Your task to perform on an android device: Open calendar and show me the second week of next month Image 0: 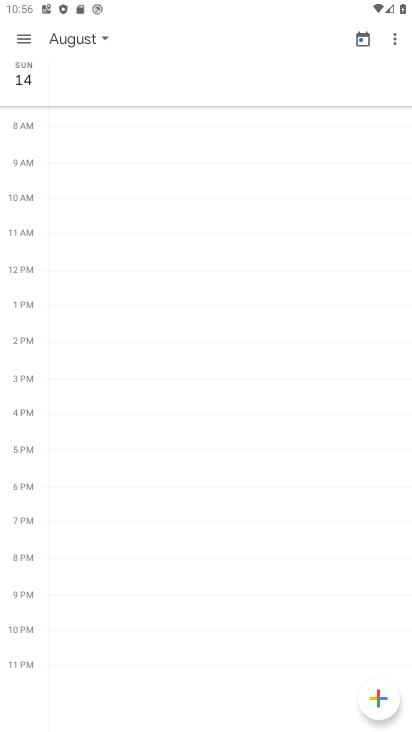
Step 0: click (99, 46)
Your task to perform on an android device: Open calendar and show me the second week of next month Image 1: 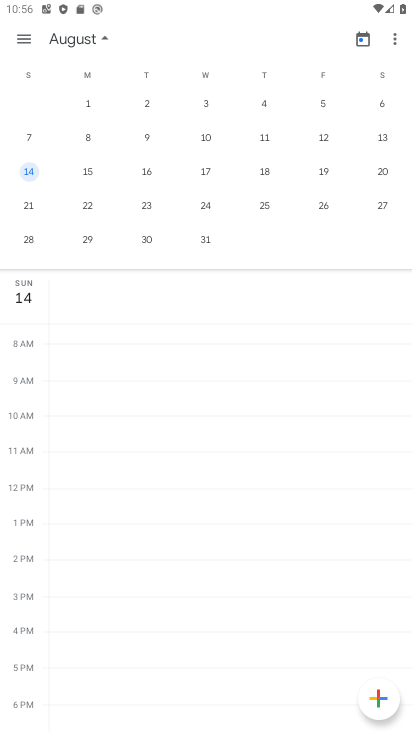
Step 1: click (32, 36)
Your task to perform on an android device: Open calendar and show me the second week of next month Image 2: 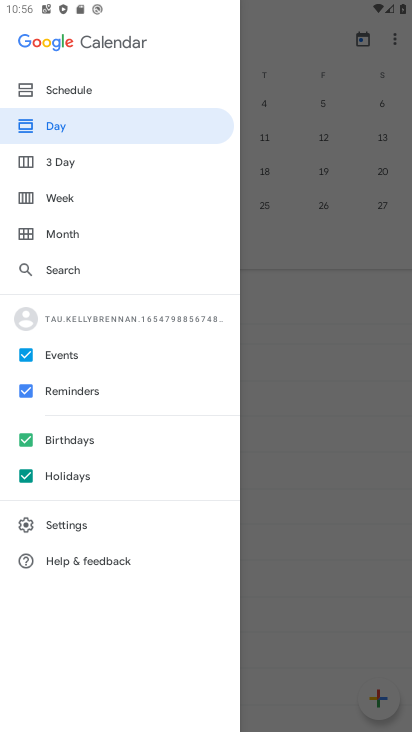
Step 2: click (65, 201)
Your task to perform on an android device: Open calendar and show me the second week of next month Image 3: 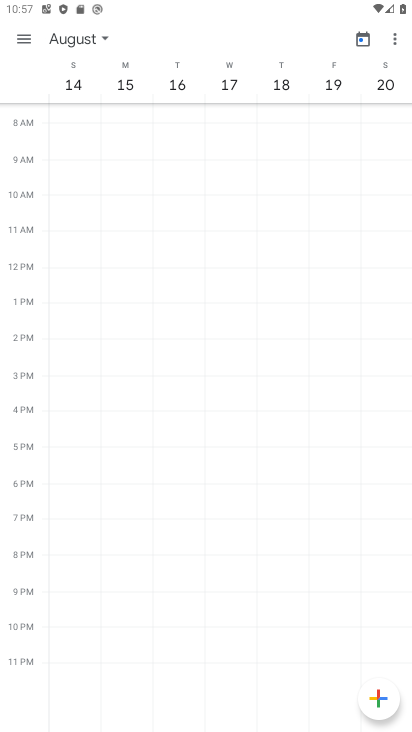
Step 3: task complete